Your task to perform on an android device: Open accessibility settings Image 0: 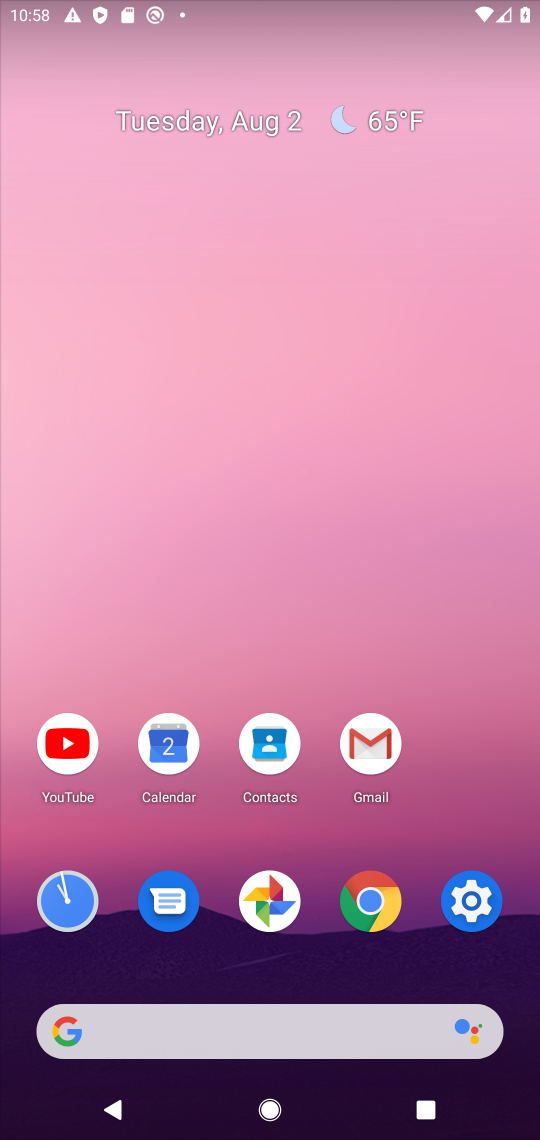
Step 0: click (481, 909)
Your task to perform on an android device: Open accessibility settings Image 1: 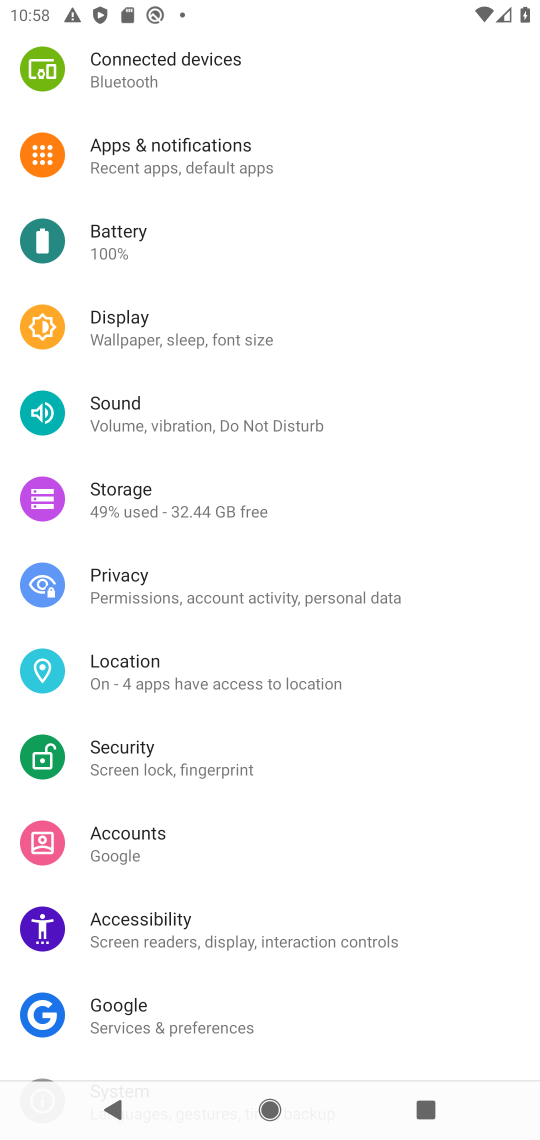
Step 1: click (154, 917)
Your task to perform on an android device: Open accessibility settings Image 2: 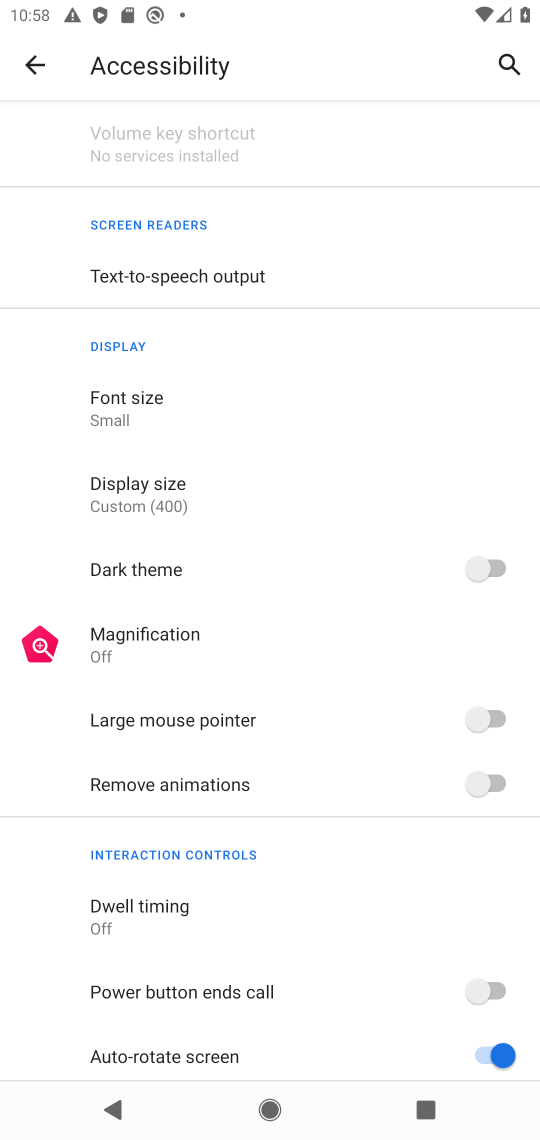
Step 2: task complete